Your task to perform on an android device: find snoozed emails in the gmail app Image 0: 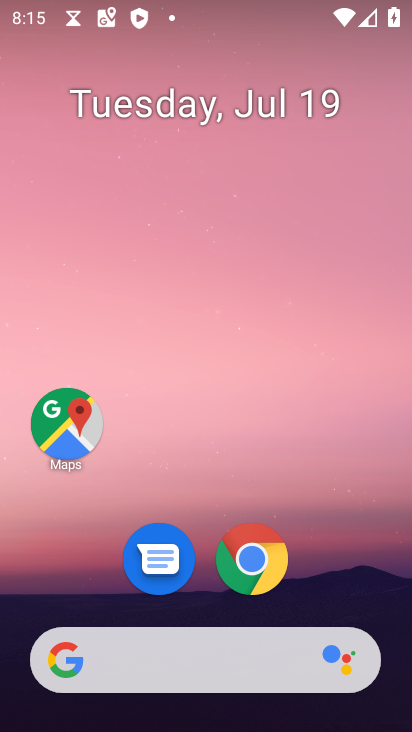
Step 0: drag from (93, 580) to (227, 75)
Your task to perform on an android device: find snoozed emails in the gmail app Image 1: 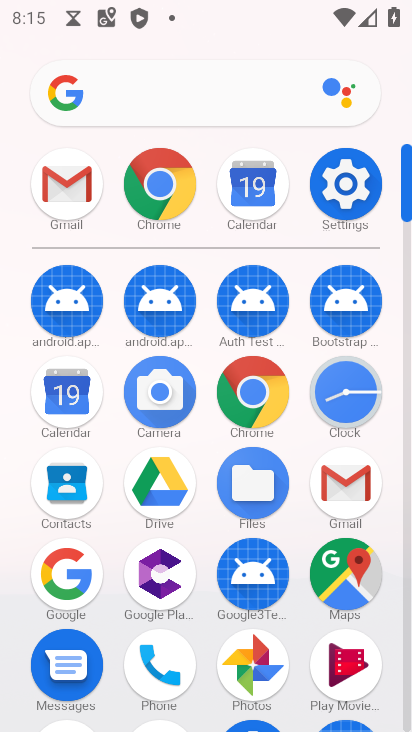
Step 1: click (75, 192)
Your task to perform on an android device: find snoozed emails in the gmail app Image 2: 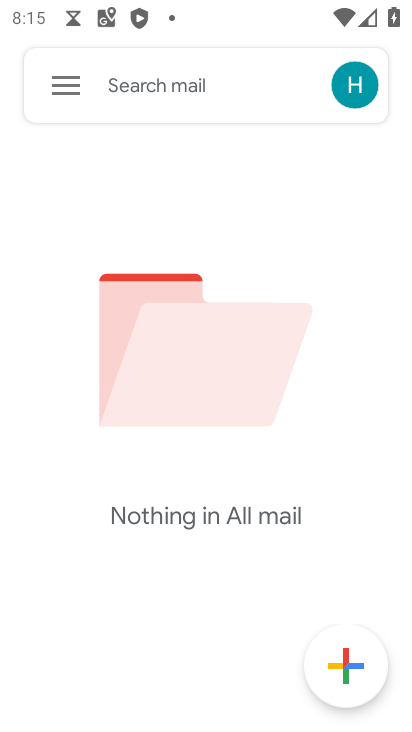
Step 2: click (89, 77)
Your task to perform on an android device: find snoozed emails in the gmail app Image 3: 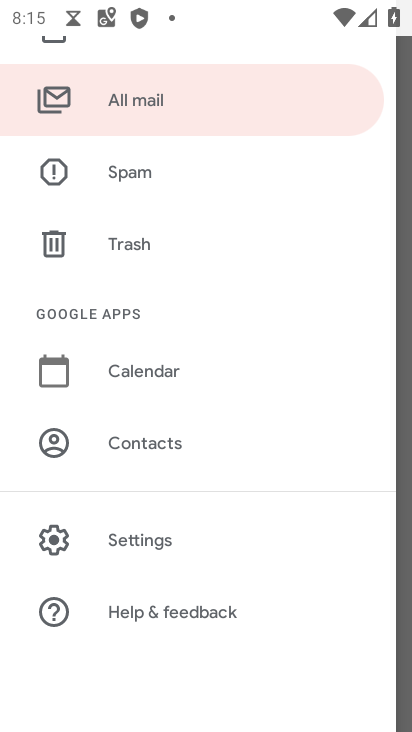
Step 3: drag from (130, 142) to (174, 673)
Your task to perform on an android device: find snoozed emails in the gmail app Image 4: 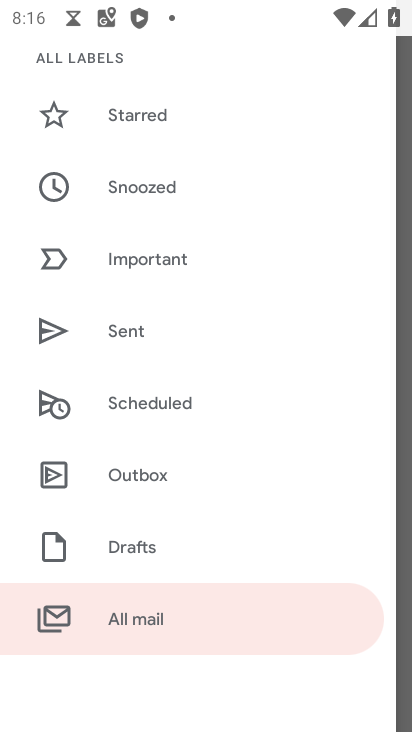
Step 4: click (140, 190)
Your task to perform on an android device: find snoozed emails in the gmail app Image 5: 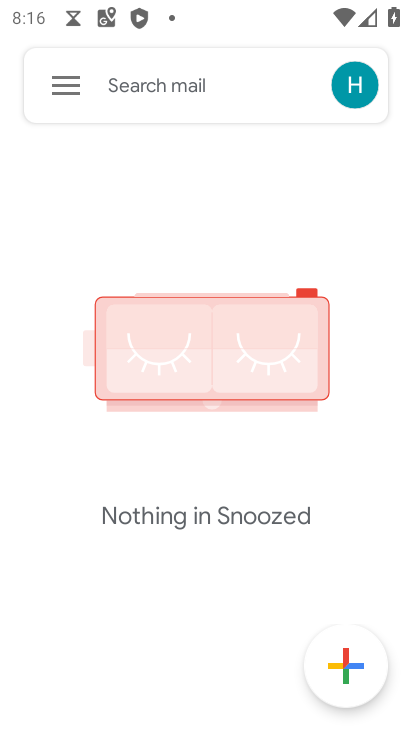
Step 5: task complete